Your task to perform on an android device: Go to ESPN.com Image 0: 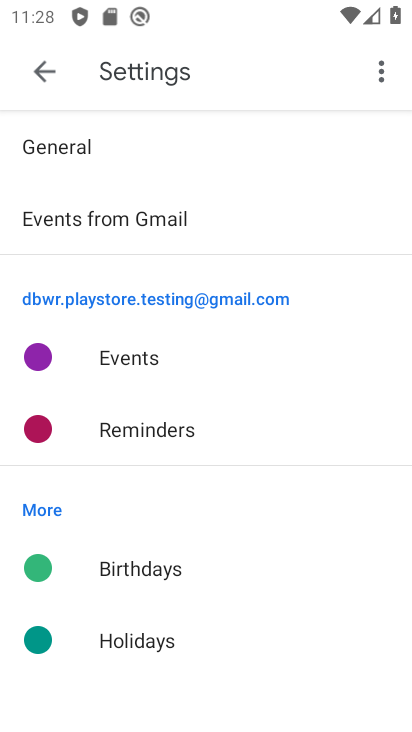
Step 0: press home button
Your task to perform on an android device: Go to ESPN.com Image 1: 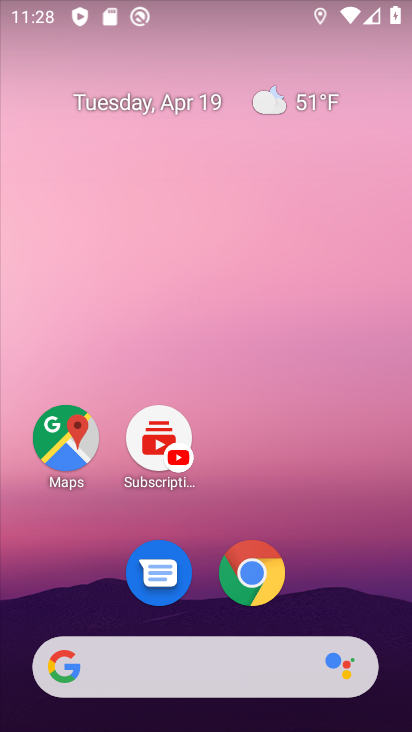
Step 1: click (241, 572)
Your task to perform on an android device: Go to ESPN.com Image 2: 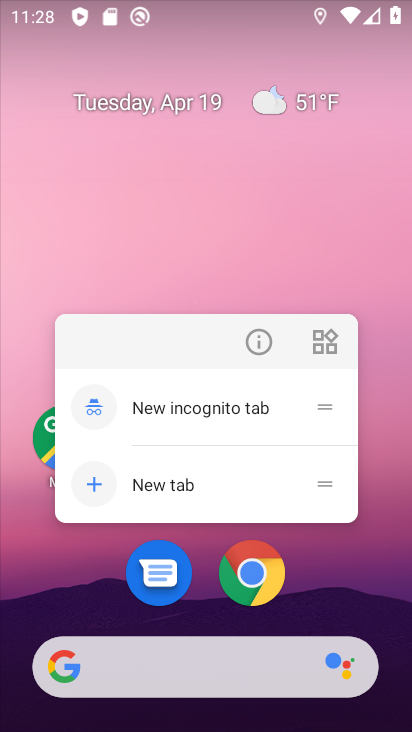
Step 2: click (250, 572)
Your task to perform on an android device: Go to ESPN.com Image 3: 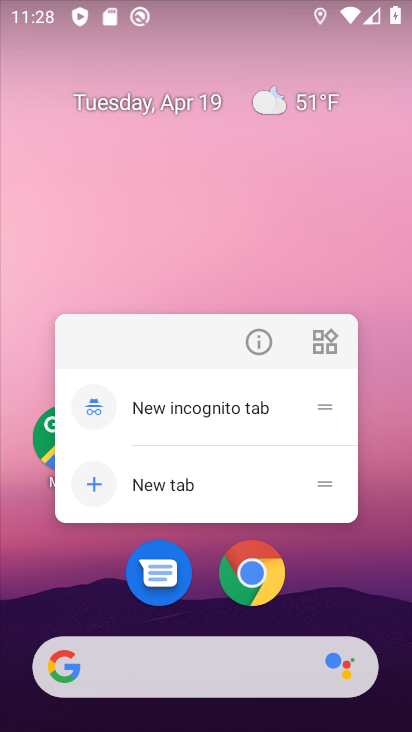
Step 3: click (250, 572)
Your task to perform on an android device: Go to ESPN.com Image 4: 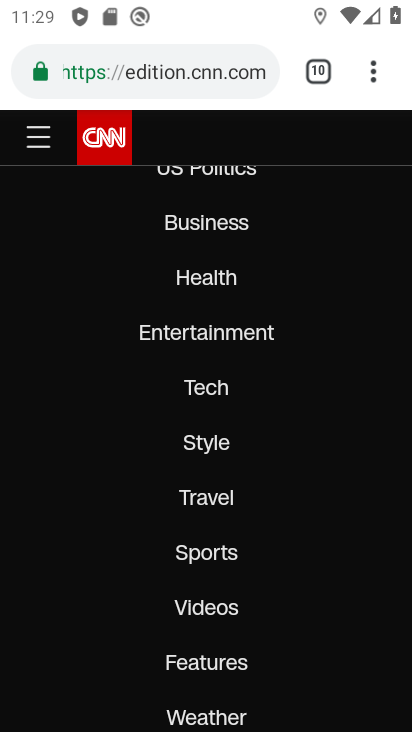
Step 4: click (310, 72)
Your task to perform on an android device: Go to ESPN.com Image 5: 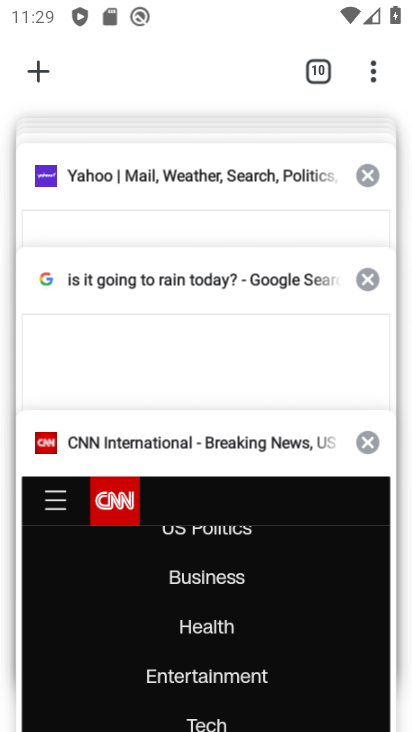
Step 5: drag from (177, 177) to (194, 457)
Your task to perform on an android device: Go to ESPN.com Image 6: 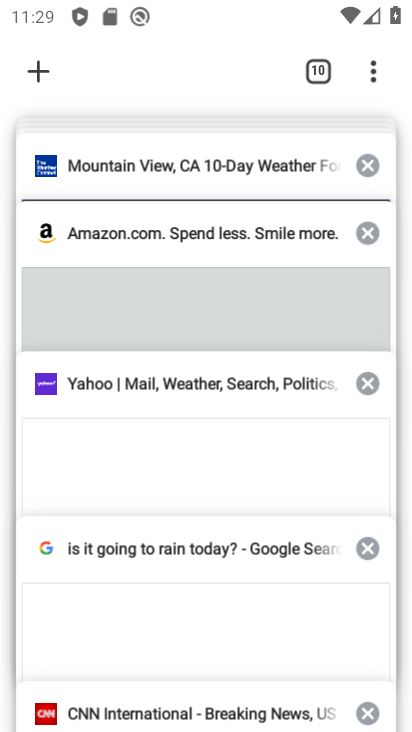
Step 6: drag from (117, 269) to (127, 516)
Your task to perform on an android device: Go to ESPN.com Image 7: 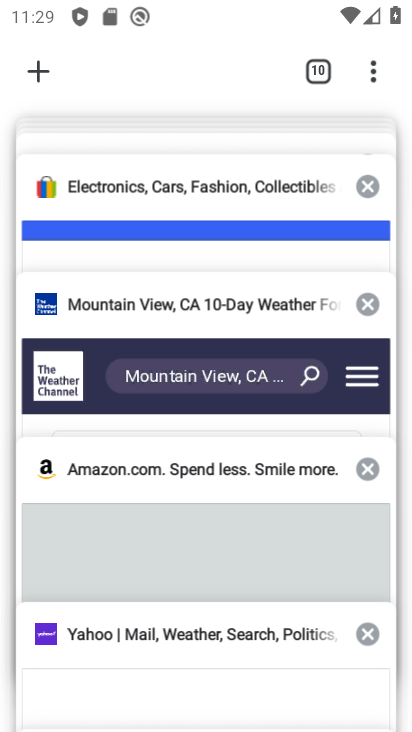
Step 7: drag from (142, 294) to (138, 502)
Your task to perform on an android device: Go to ESPN.com Image 8: 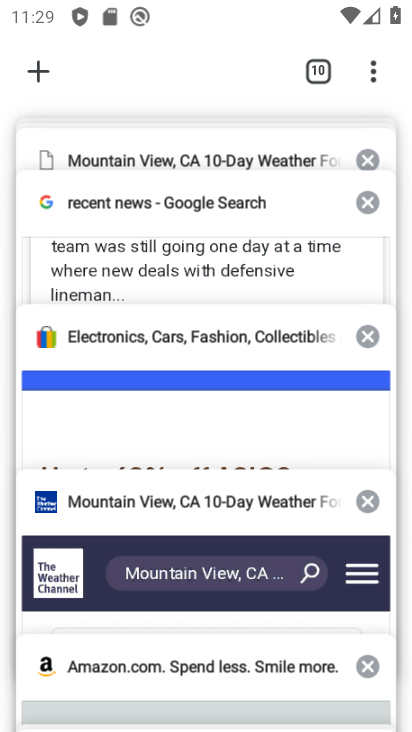
Step 8: drag from (158, 185) to (190, 503)
Your task to perform on an android device: Go to ESPN.com Image 9: 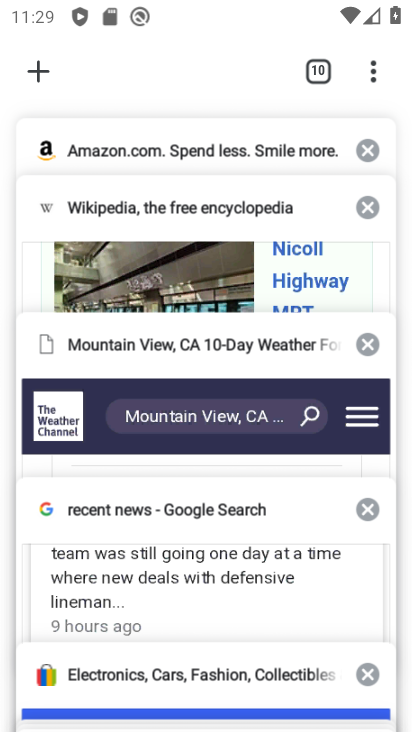
Step 9: drag from (111, 299) to (106, 402)
Your task to perform on an android device: Go to ESPN.com Image 10: 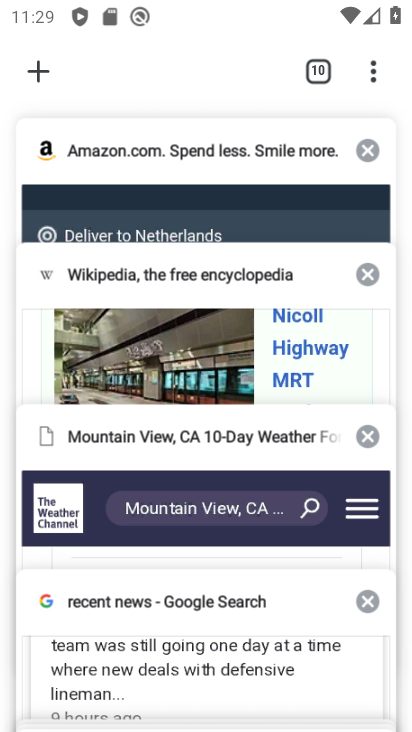
Step 10: click (46, 72)
Your task to perform on an android device: Go to ESPN.com Image 11: 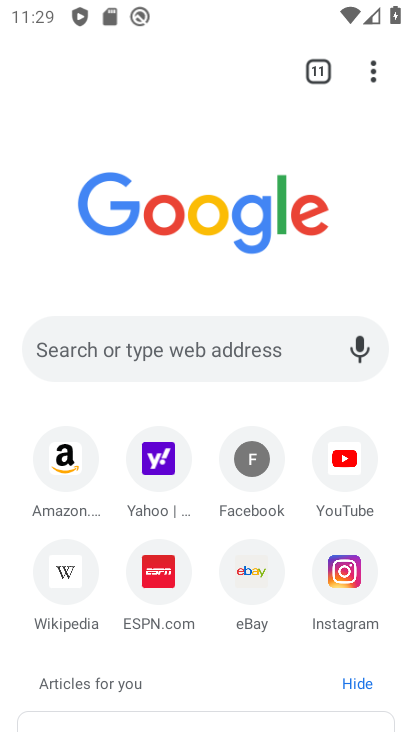
Step 11: click (163, 577)
Your task to perform on an android device: Go to ESPN.com Image 12: 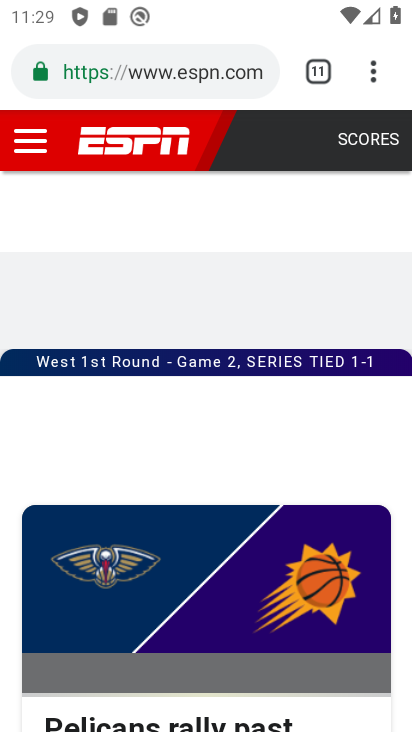
Step 12: task complete